Your task to perform on an android device: Open Google Chrome and click the shortcut for Amazon.com Image 0: 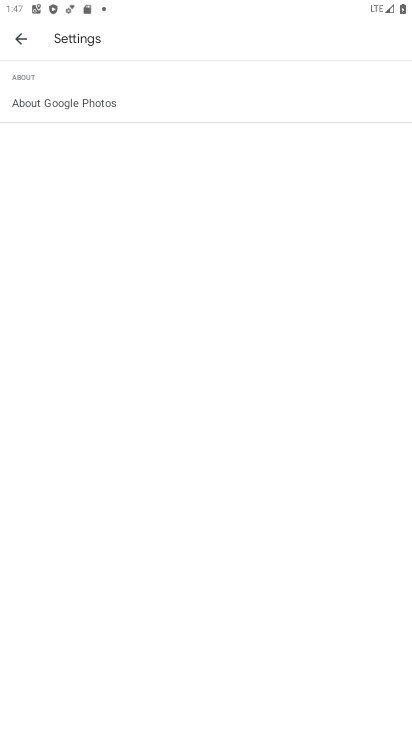
Step 0: press home button
Your task to perform on an android device: Open Google Chrome and click the shortcut for Amazon.com Image 1: 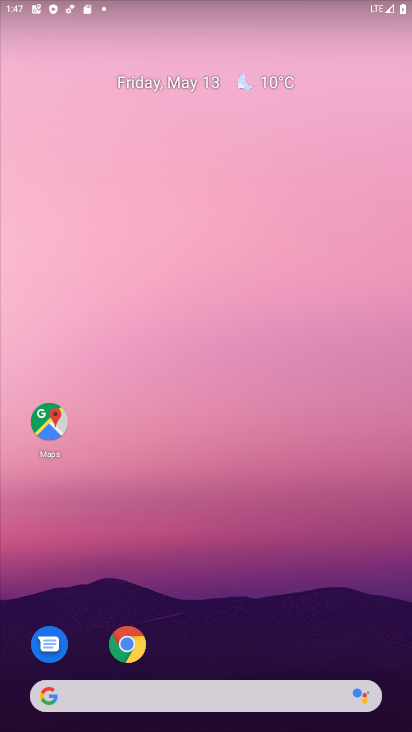
Step 1: drag from (284, 662) to (284, 49)
Your task to perform on an android device: Open Google Chrome and click the shortcut for Amazon.com Image 2: 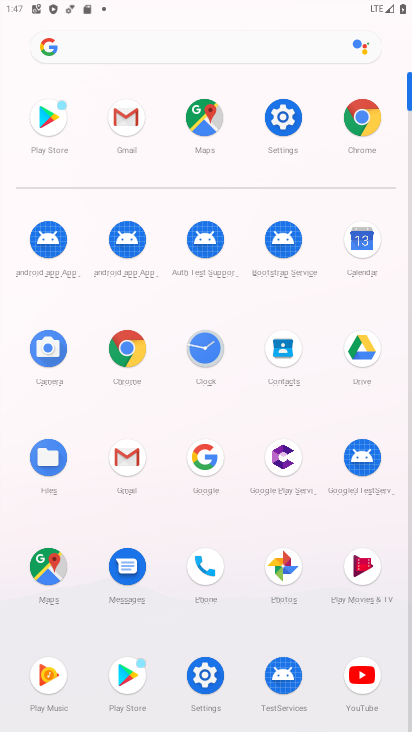
Step 2: click (137, 355)
Your task to perform on an android device: Open Google Chrome and click the shortcut for Amazon.com Image 3: 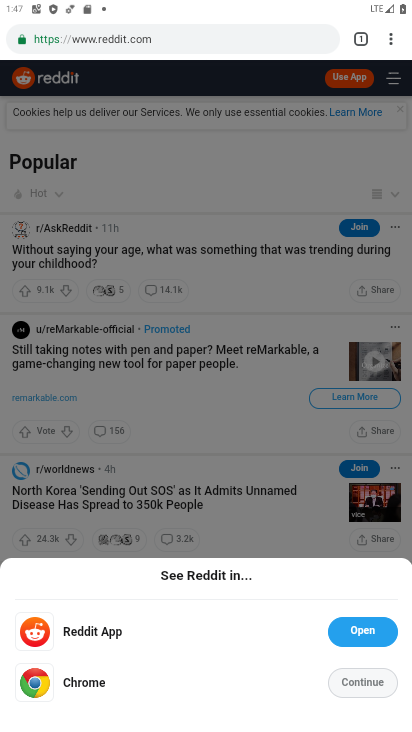
Step 3: click (390, 29)
Your task to perform on an android device: Open Google Chrome and click the shortcut for Amazon.com Image 4: 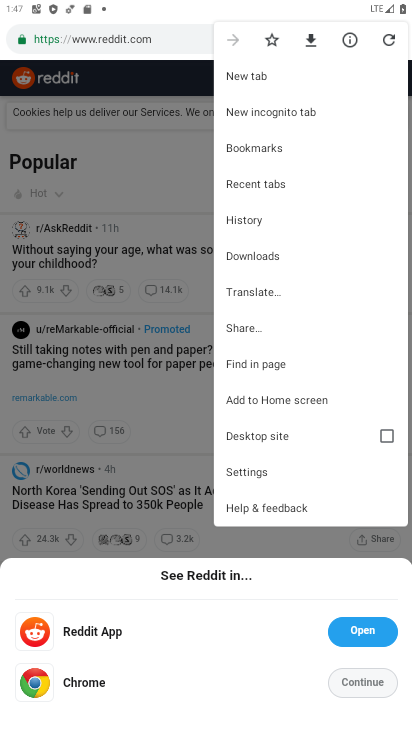
Step 4: click (173, 301)
Your task to perform on an android device: Open Google Chrome and click the shortcut for Amazon.com Image 5: 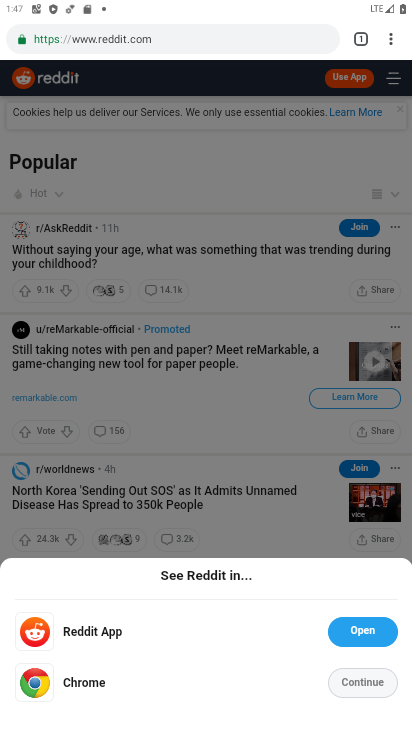
Step 5: drag from (390, 37) to (269, 84)
Your task to perform on an android device: Open Google Chrome and click the shortcut for Amazon.com Image 6: 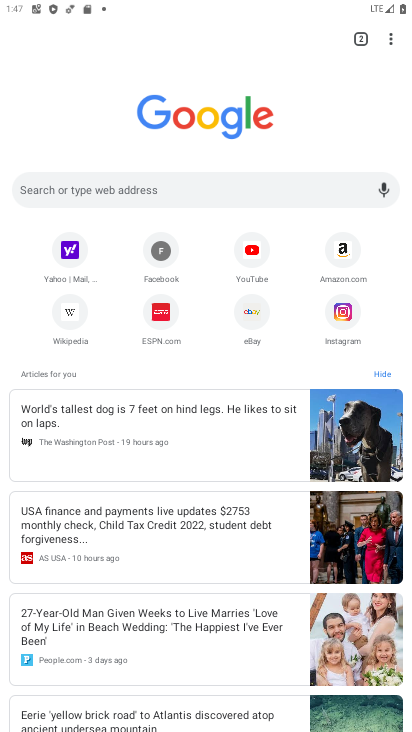
Step 6: click (344, 256)
Your task to perform on an android device: Open Google Chrome and click the shortcut for Amazon.com Image 7: 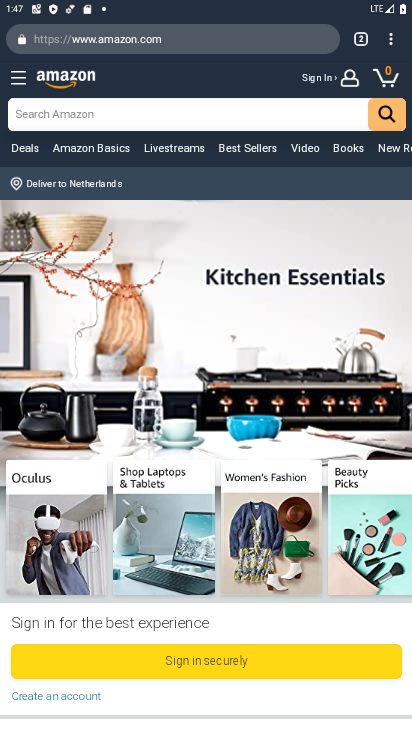
Step 7: task complete